Your task to perform on an android device: choose inbox layout in the gmail app Image 0: 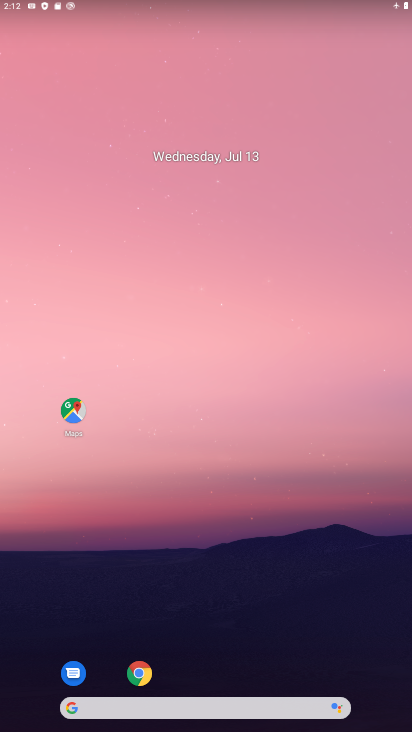
Step 0: drag from (221, 709) to (318, 119)
Your task to perform on an android device: choose inbox layout in the gmail app Image 1: 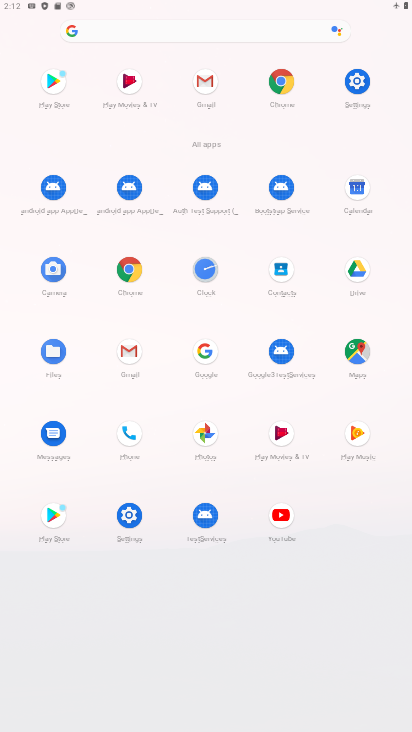
Step 1: click (128, 350)
Your task to perform on an android device: choose inbox layout in the gmail app Image 2: 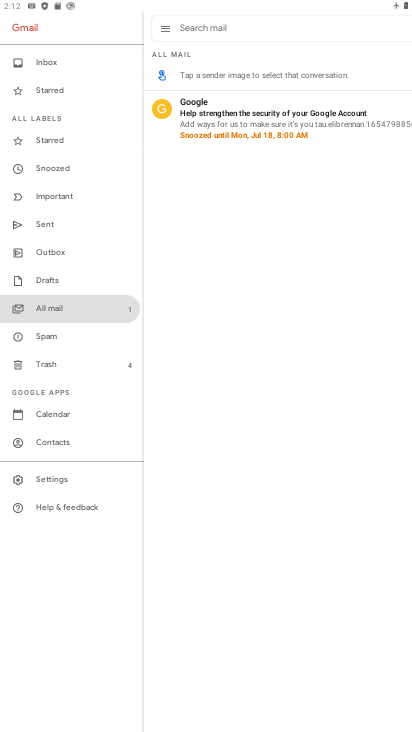
Step 2: click (57, 481)
Your task to perform on an android device: choose inbox layout in the gmail app Image 3: 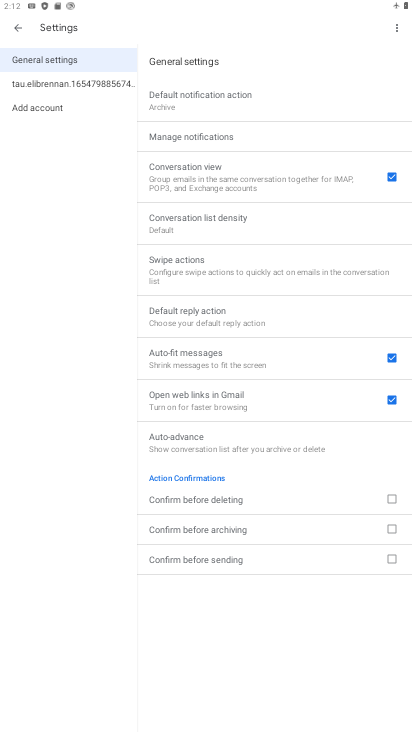
Step 3: click (85, 86)
Your task to perform on an android device: choose inbox layout in the gmail app Image 4: 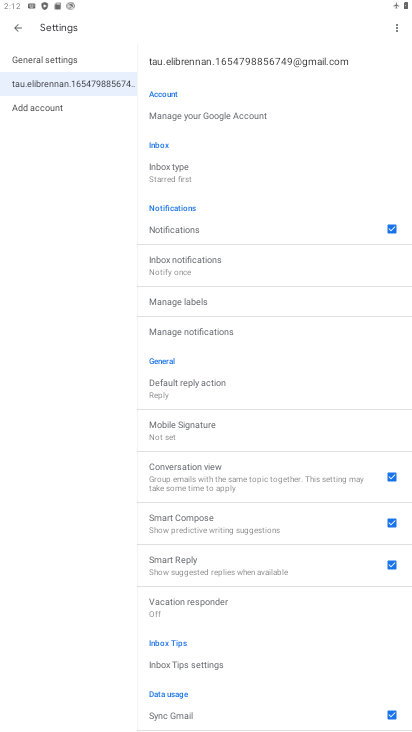
Step 4: click (180, 183)
Your task to perform on an android device: choose inbox layout in the gmail app Image 5: 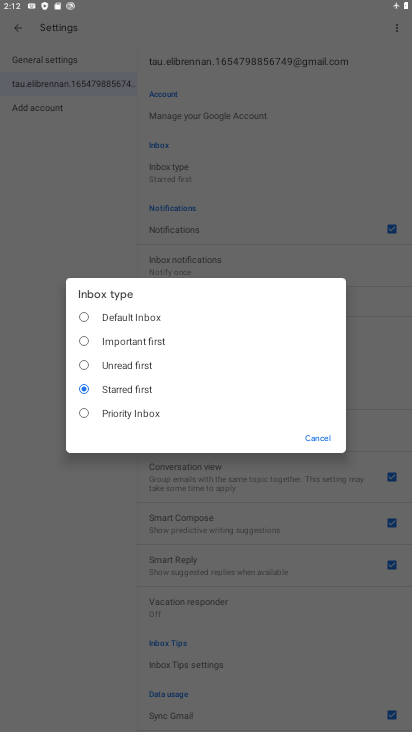
Step 5: click (84, 357)
Your task to perform on an android device: choose inbox layout in the gmail app Image 6: 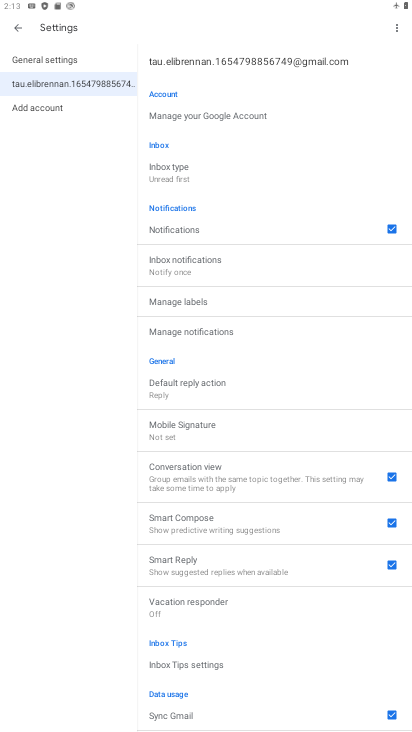
Step 6: task complete